Your task to perform on an android device: Go to Maps Image 0: 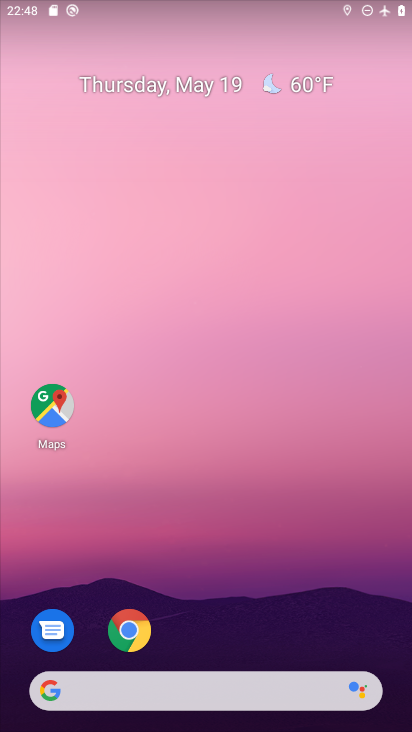
Step 0: click (51, 402)
Your task to perform on an android device: Go to Maps Image 1: 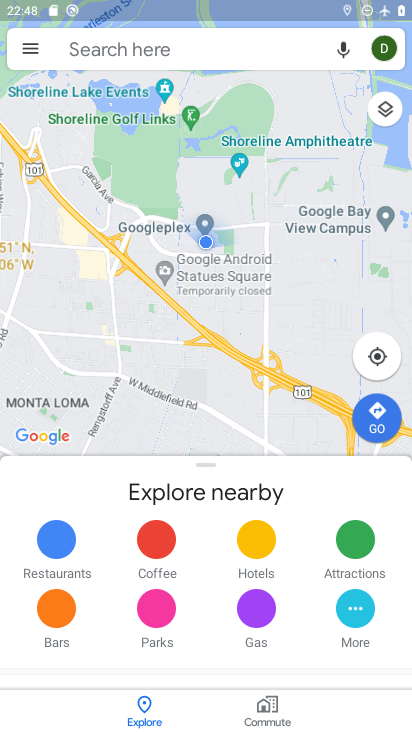
Step 1: task complete